Your task to perform on an android device: check google app version Image 0: 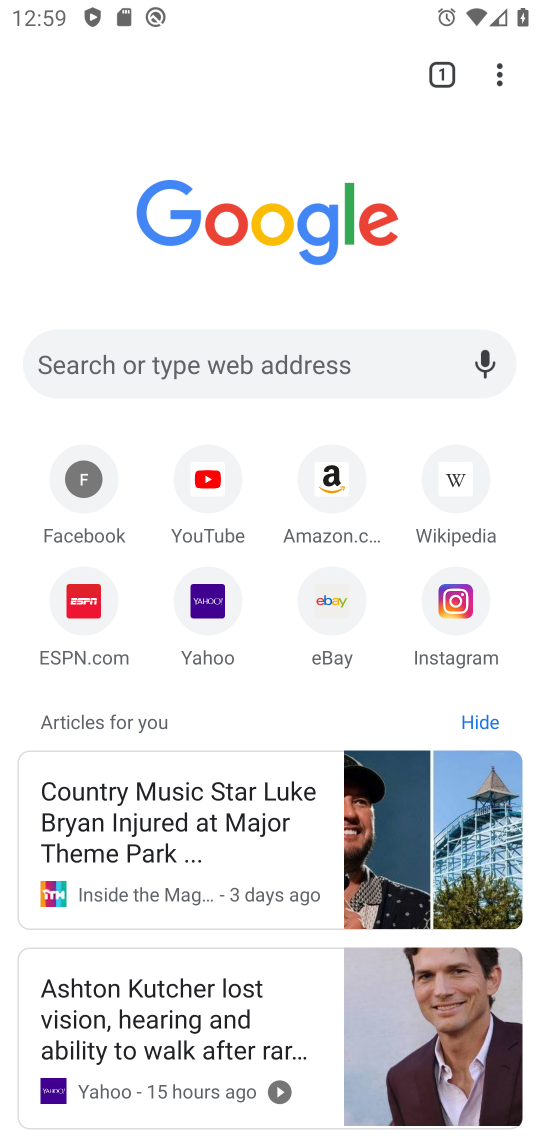
Step 0: drag from (264, 993) to (261, 379)
Your task to perform on an android device: check google app version Image 1: 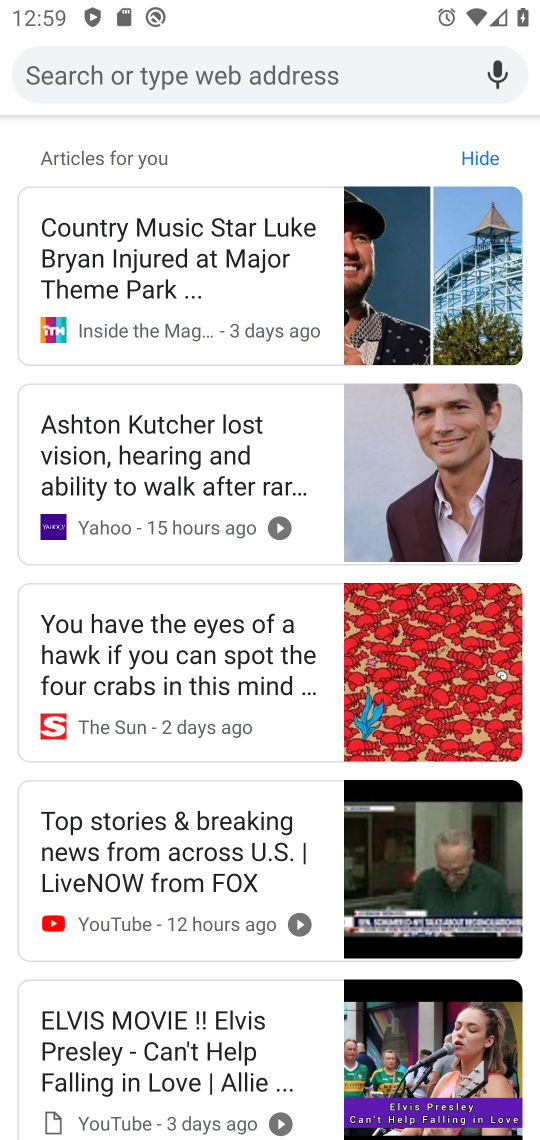
Step 1: drag from (271, 363) to (310, 1139)
Your task to perform on an android device: check google app version Image 2: 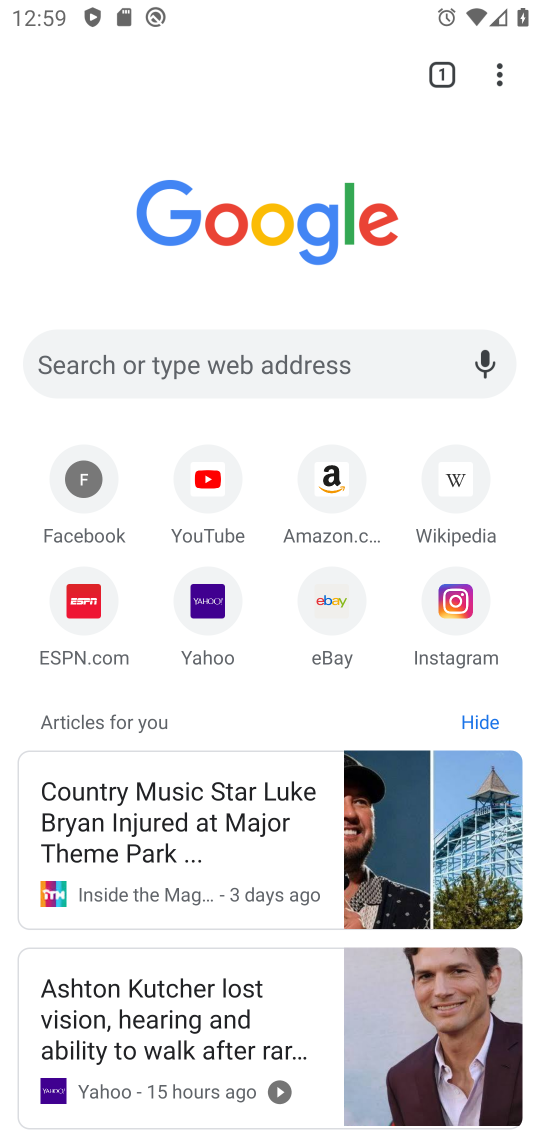
Step 2: drag from (494, 94) to (297, 640)
Your task to perform on an android device: check google app version Image 3: 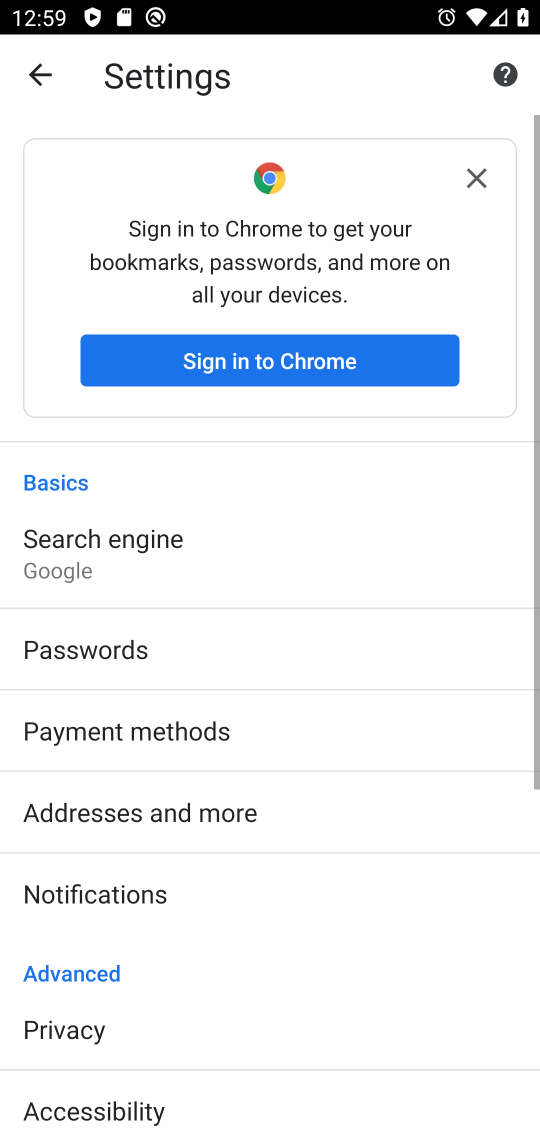
Step 3: press home button
Your task to perform on an android device: check google app version Image 4: 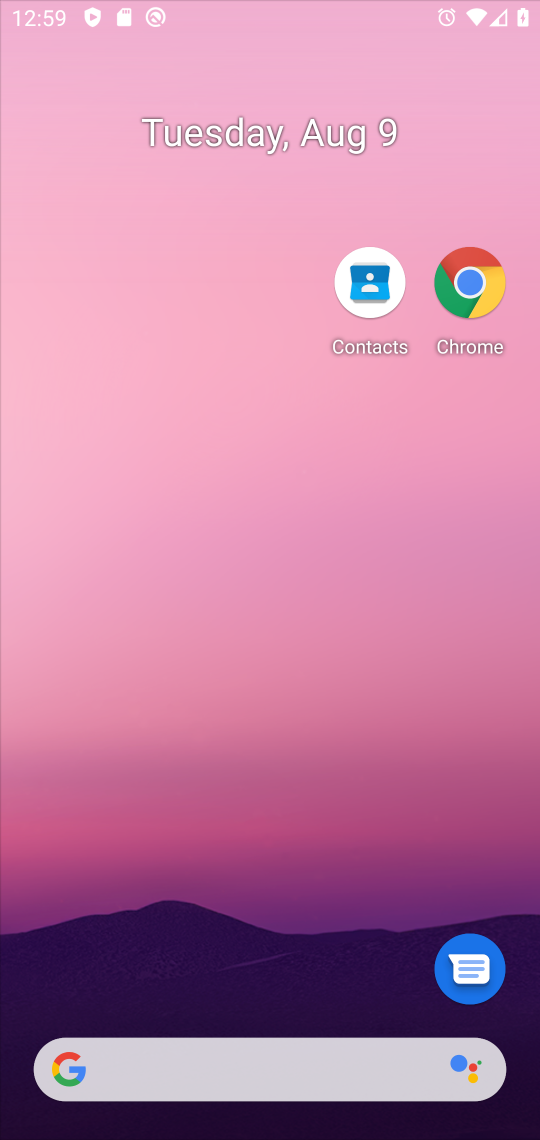
Step 4: drag from (255, 725) to (315, 6)
Your task to perform on an android device: check google app version Image 5: 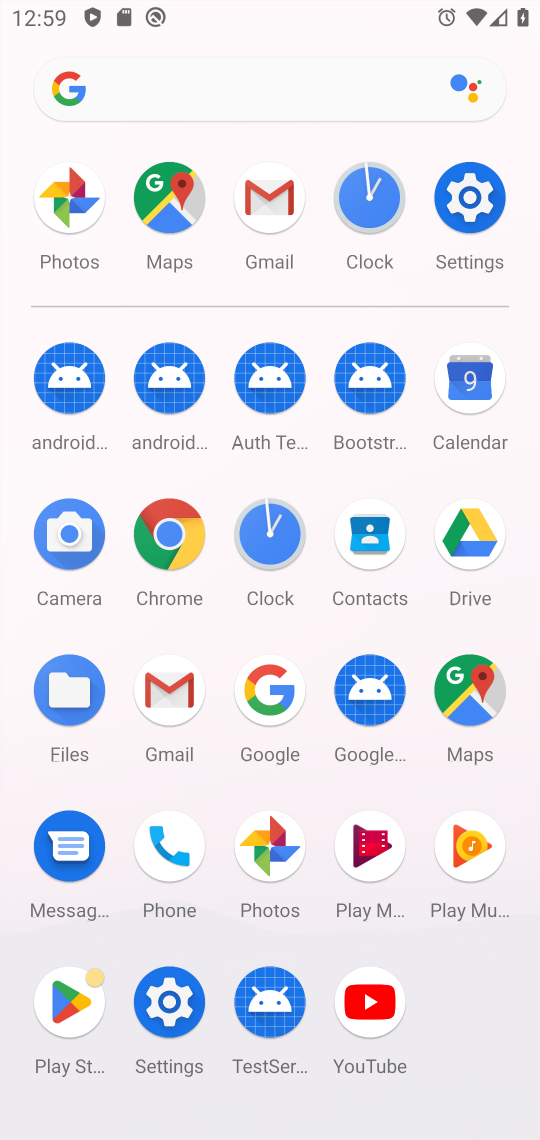
Step 5: click (273, 697)
Your task to perform on an android device: check google app version Image 6: 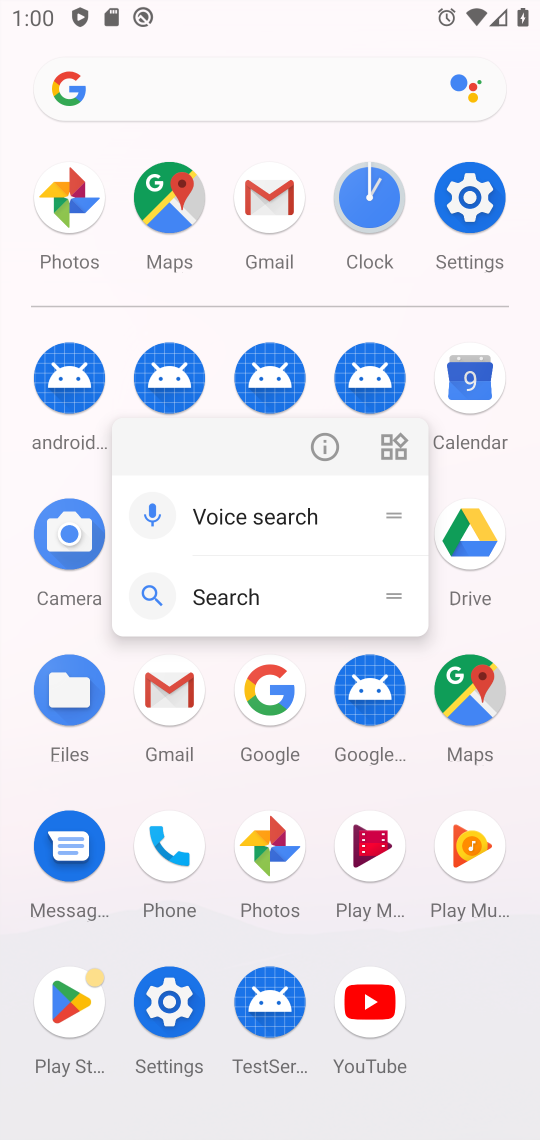
Step 6: click (310, 456)
Your task to perform on an android device: check google app version Image 7: 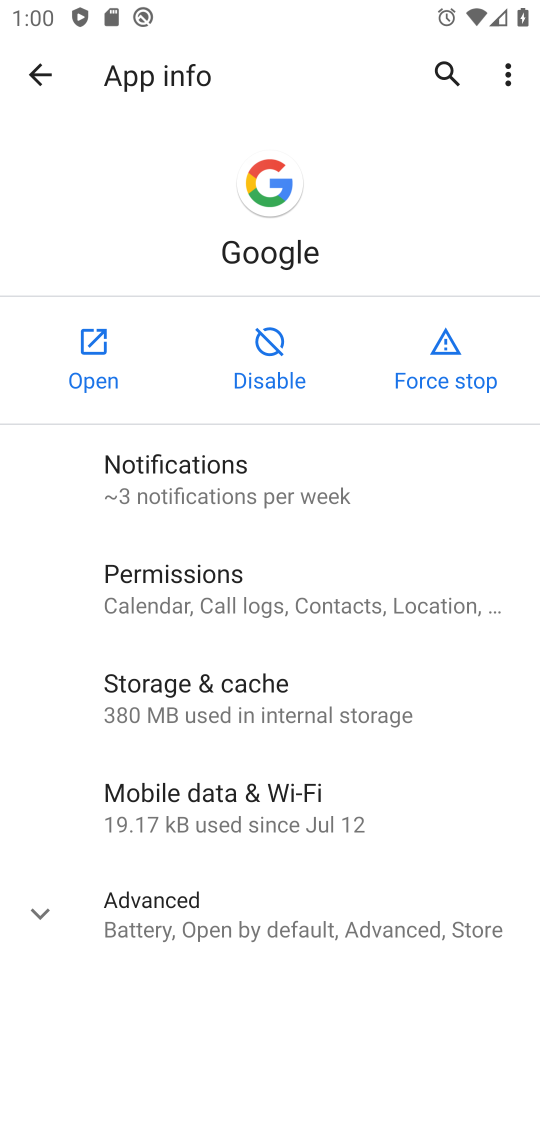
Step 7: click (69, 364)
Your task to perform on an android device: check google app version Image 8: 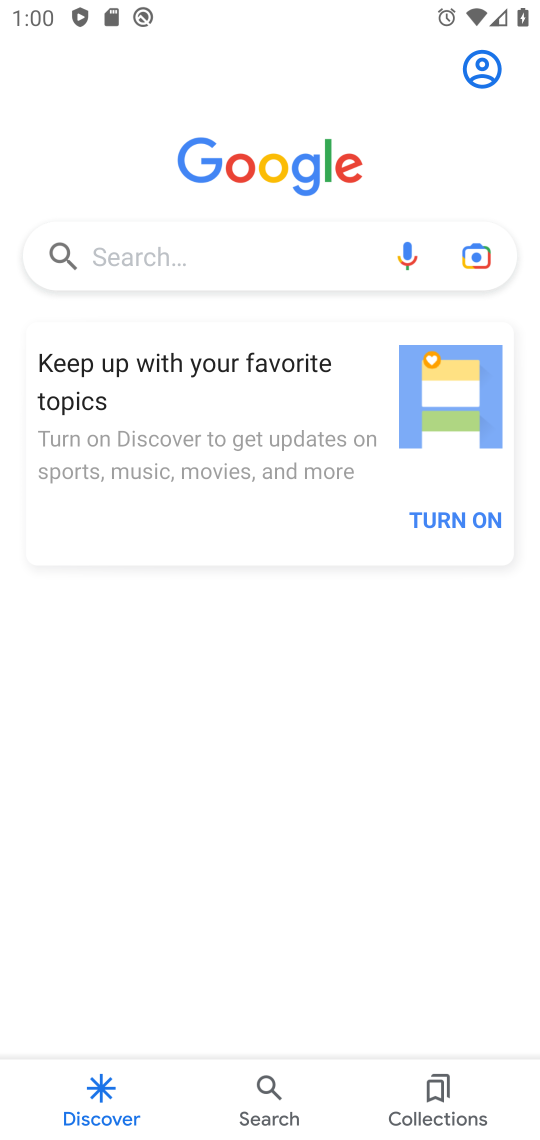
Step 8: click (488, 69)
Your task to perform on an android device: check google app version Image 9: 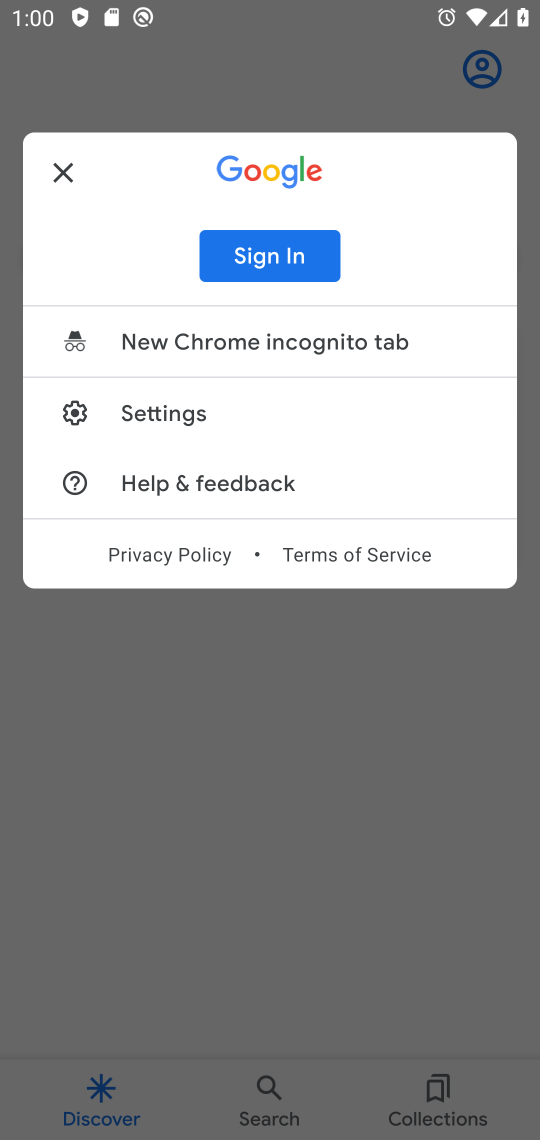
Step 9: click (160, 418)
Your task to perform on an android device: check google app version Image 10: 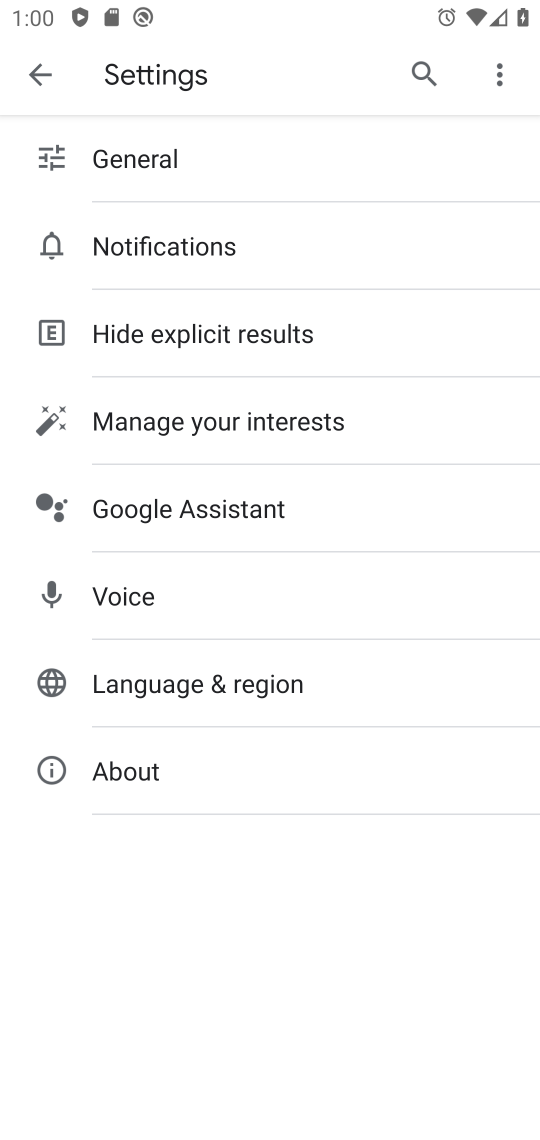
Step 10: click (165, 746)
Your task to perform on an android device: check google app version Image 11: 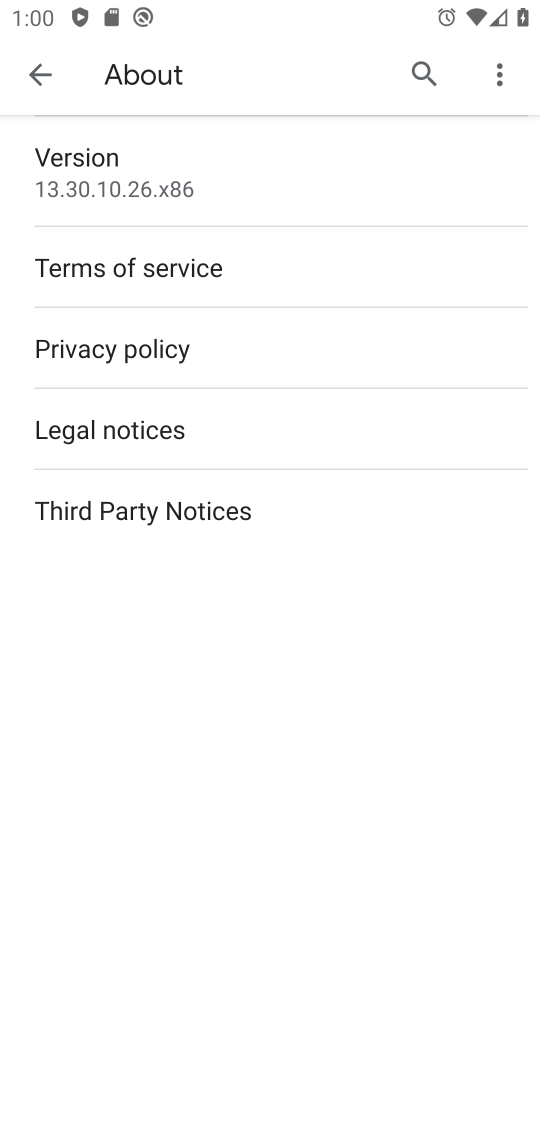
Step 11: click (221, 203)
Your task to perform on an android device: check google app version Image 12: 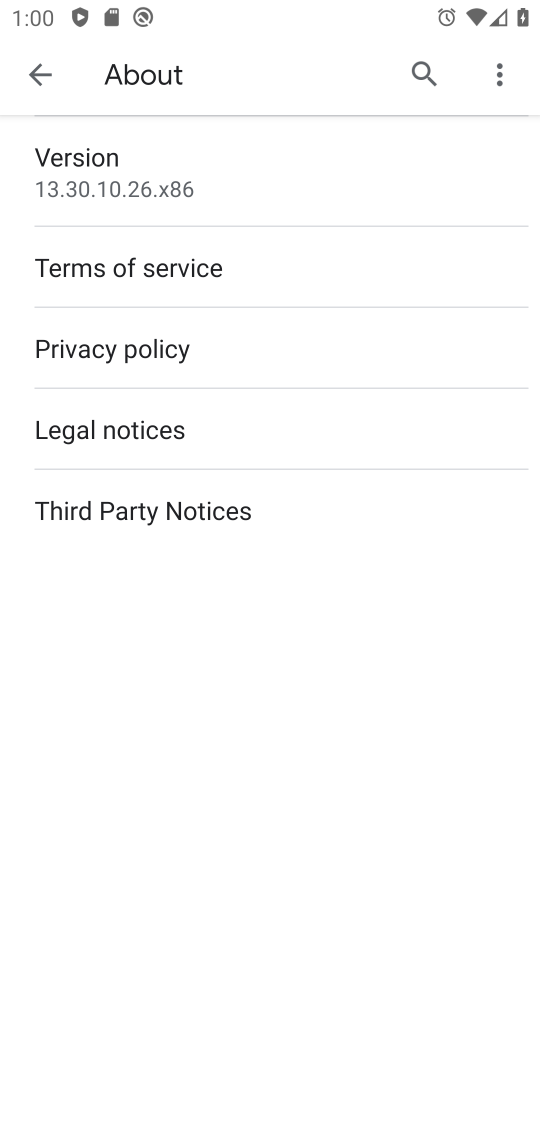
Step 12: click (205, 167)
Your task to perform on an android device: check google app version Image 13: 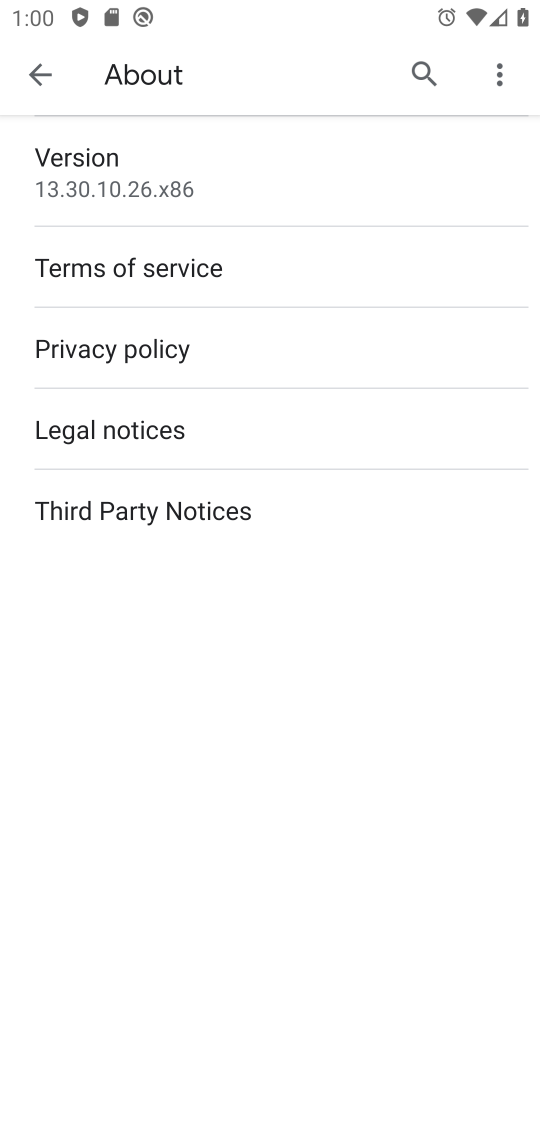
Step 13: click (205, 167)
Your task to perform on an android device: check google app version Image 14: 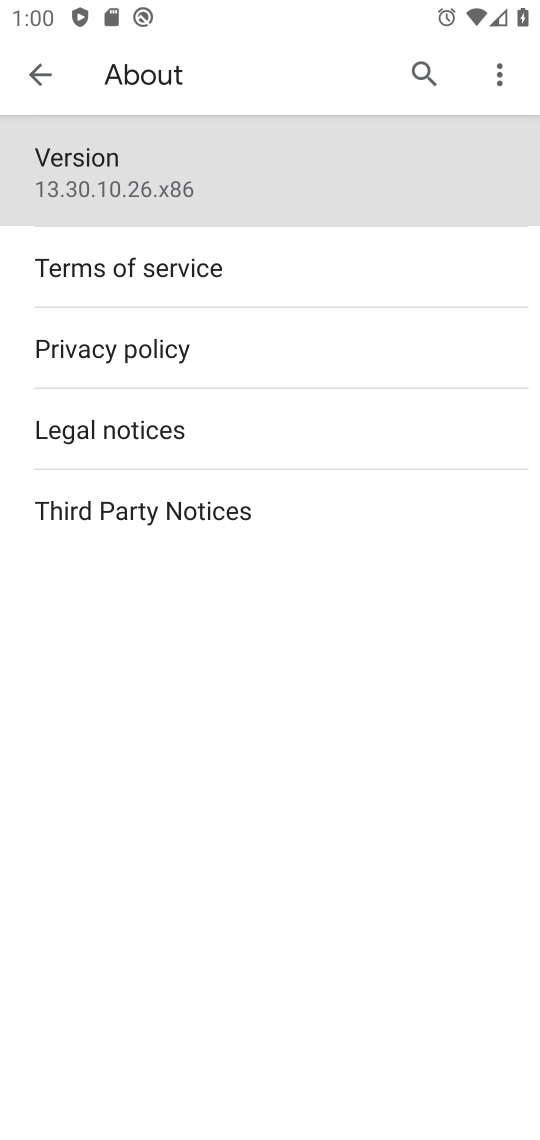
Step 14: click (205, 167)
Your task to perform on an android device: check google app version Image 15: 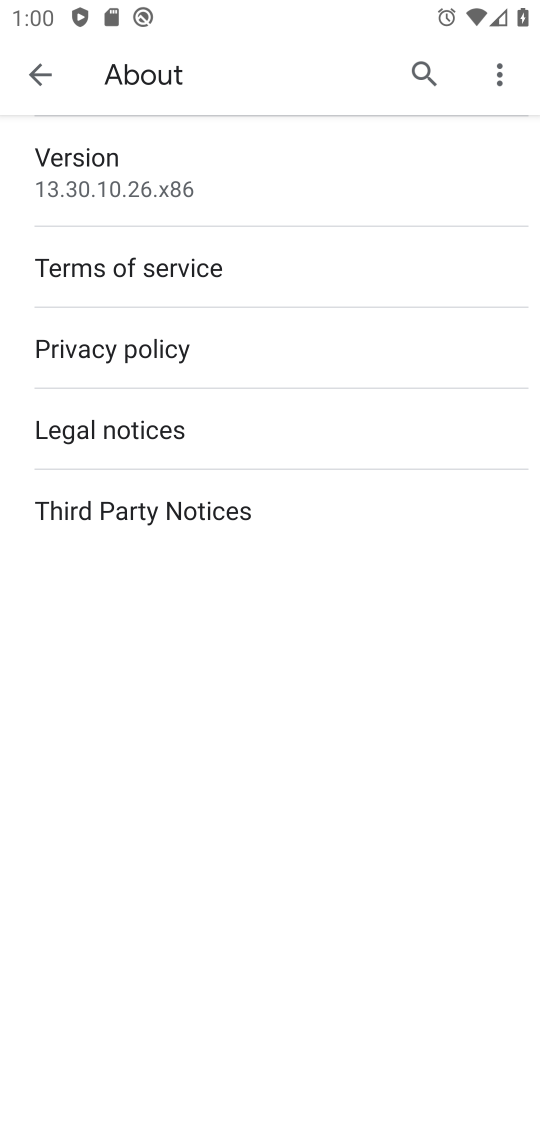
Step 15: click (291, 426)
Your task to perform on an android device: check google app version Image 16: 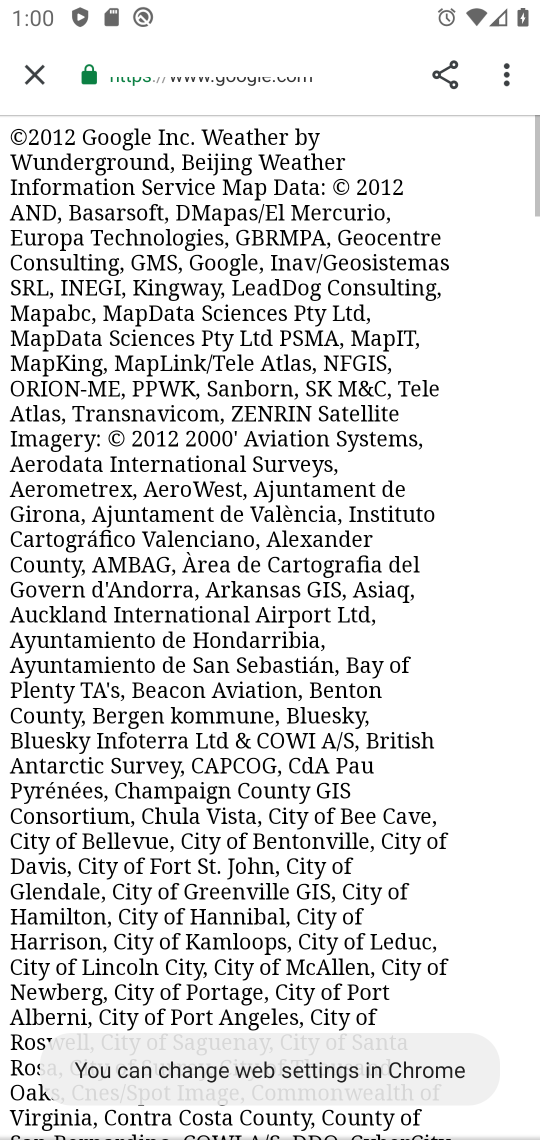
Step 16: click (36, 65)
Your task to perform on an android device: check google app version Image 17: 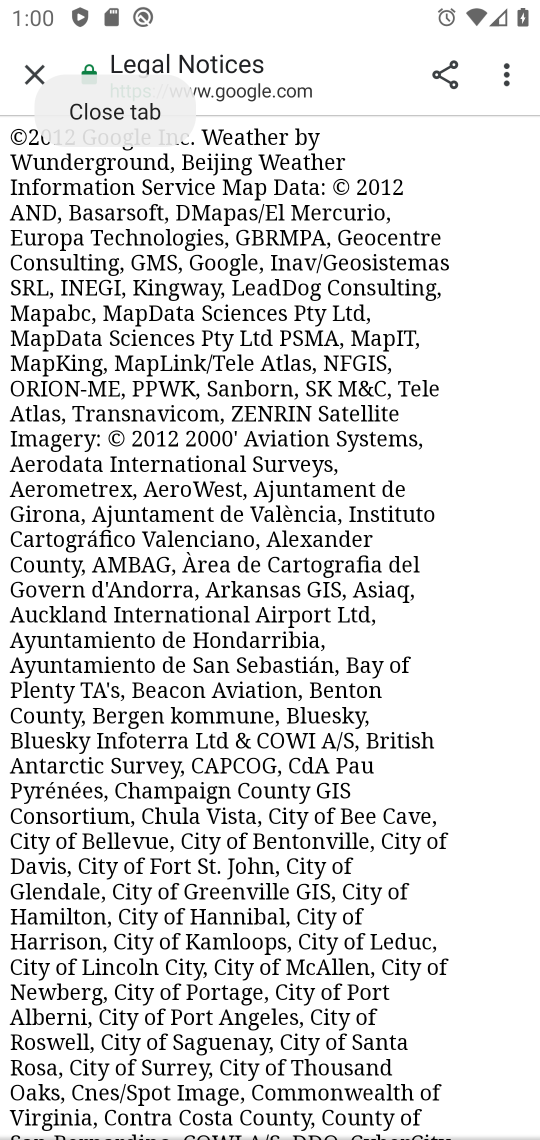
Step 17: task complete